Your task to perform on an android device: turn pop-ups on in chrome Image 0: 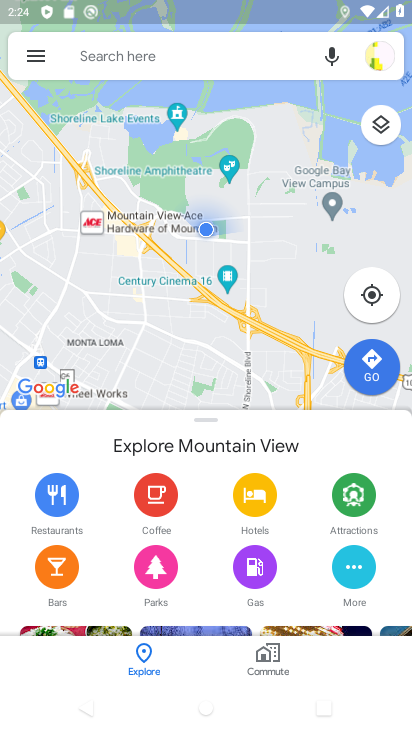
Step 0: press home button
Your task to perform on an android device: turn pop-ups on in chrome Image 1: 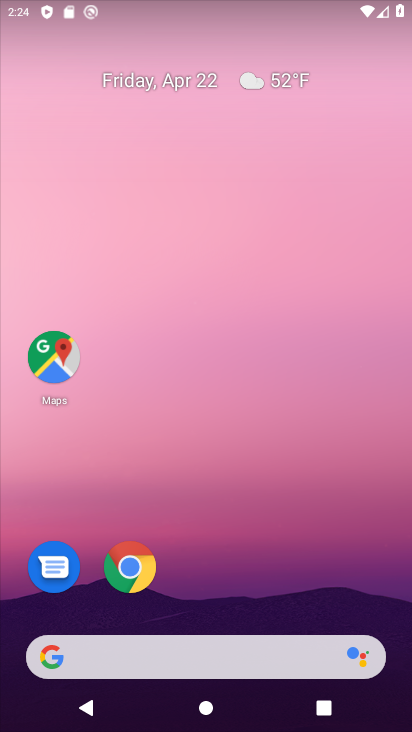
Step 1: click (129, 571)
Your task to perform on an android device: turn pop-ups on in chrome Image 2: 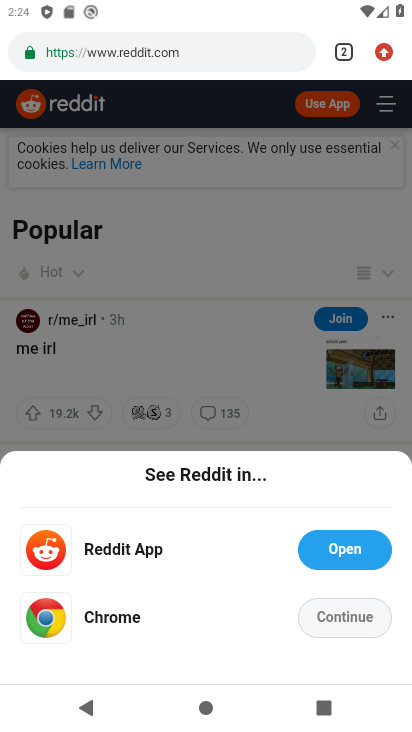
Step 2: click (381, 51)
Your task to perform on an android device: turn pop-ups on in chrome Image 3: 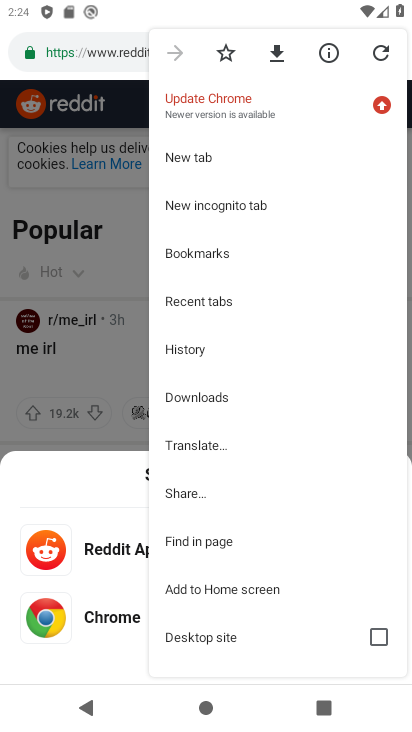
Step 3: drag from (241, 577) to (241, 263)
Your task to perform on an android device: turn pop-ups on in chrome Image 4: 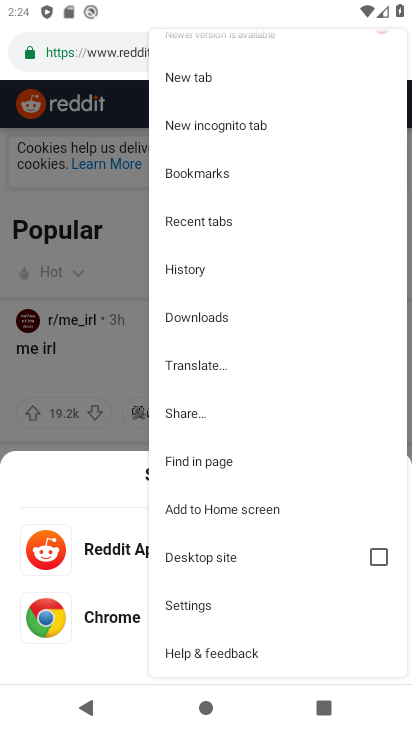
Step 4: click (204, 604)
Your task to perform on an android device: turn pop-ups on in chrome Image 5: 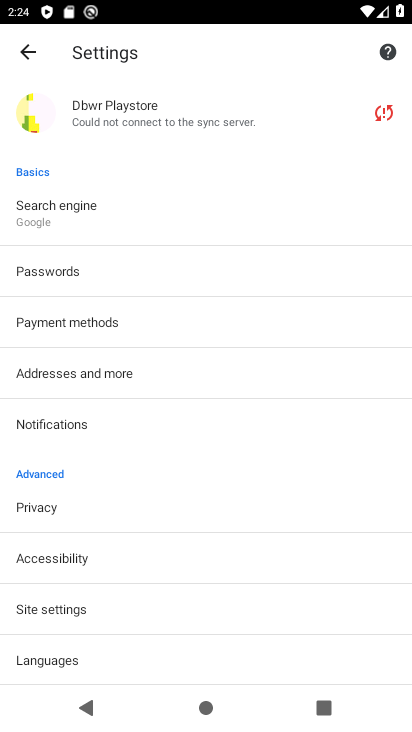
Step 5: click (92, 618)
Your task to perform on an android device: turn pop-ups on in chrome Image 6: 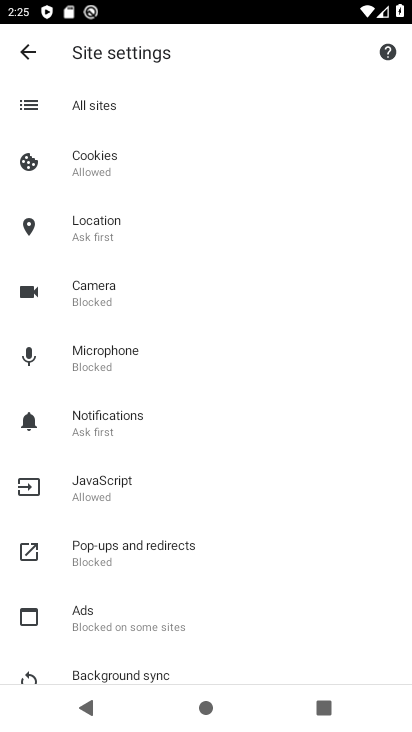
Step 6: click (135, 558)
Your task to perform on an android device: turn pop-ups on in chrome Image 7: 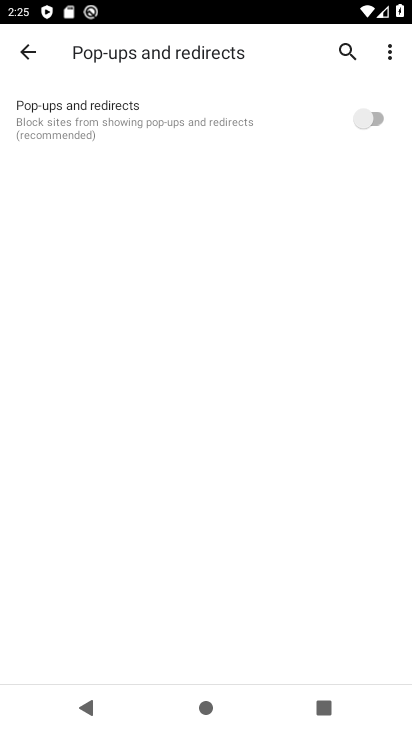
Step 7: click (363, 119)
Your task to perform on an android device: turn pop-ups on in chrome Image 8: 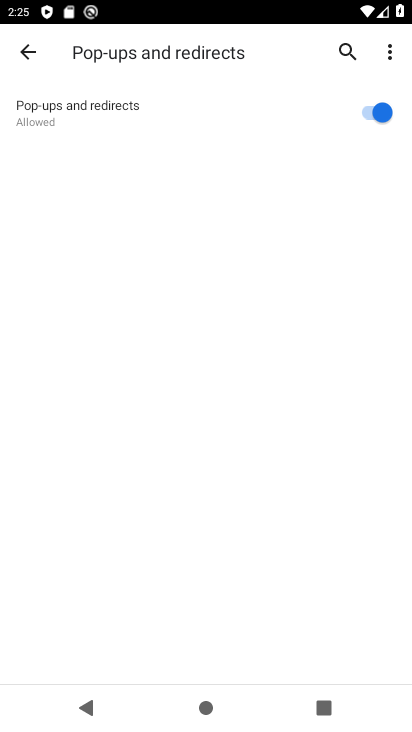
Step 8: task complete